Your task to perform on an android device: Go to Wikipedia Image 0: 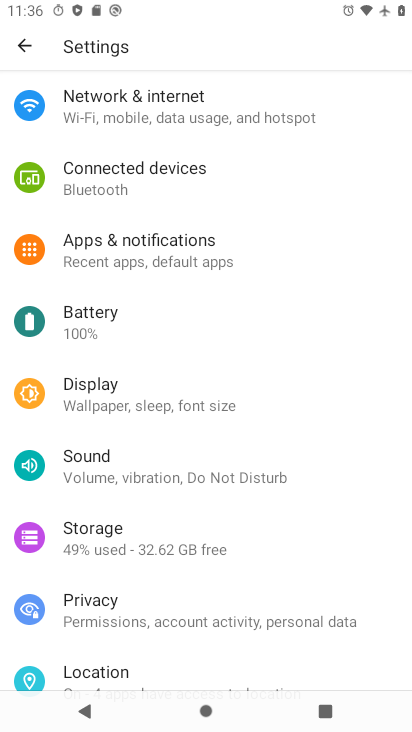
Step 0: press home button
Your task to perform on an android device: Go to Wikipedia Image 1: 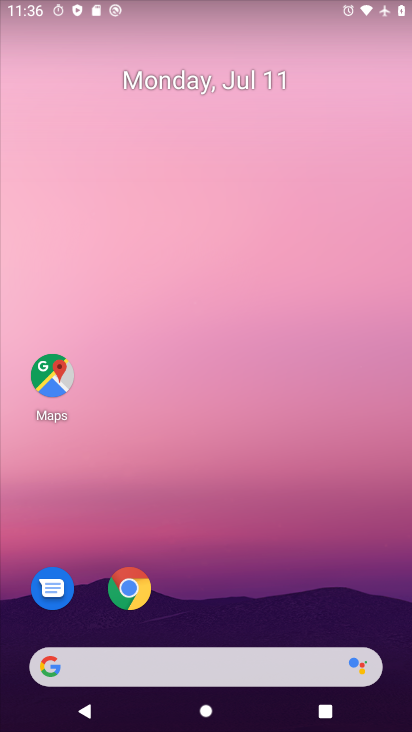
Step 1: click (130, 587)
Your task to perform on an android device: Go to Wikipedia Image 2: 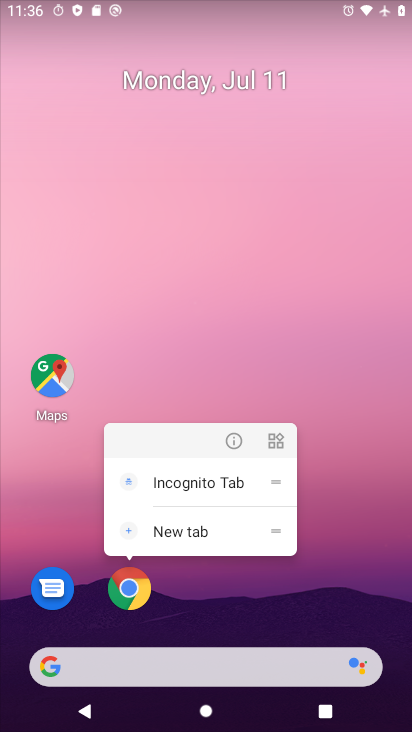
Step 2: click (130, 592)
Your task to perform on an android device: Go to Wikipedia Image 3: 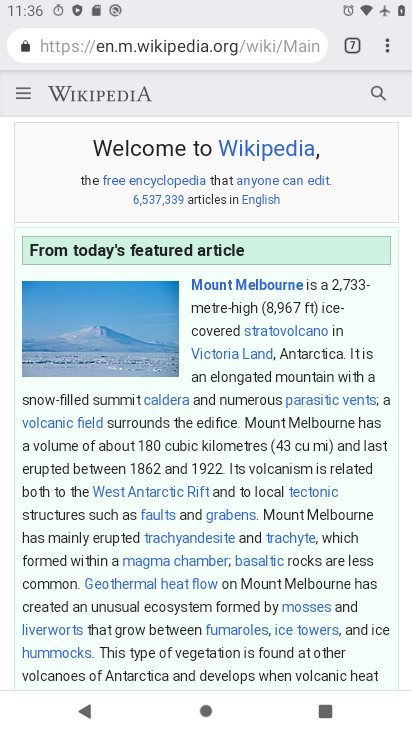
Step 3: task complete